Your task to perform on an android device: Go to internet settings Image 0: 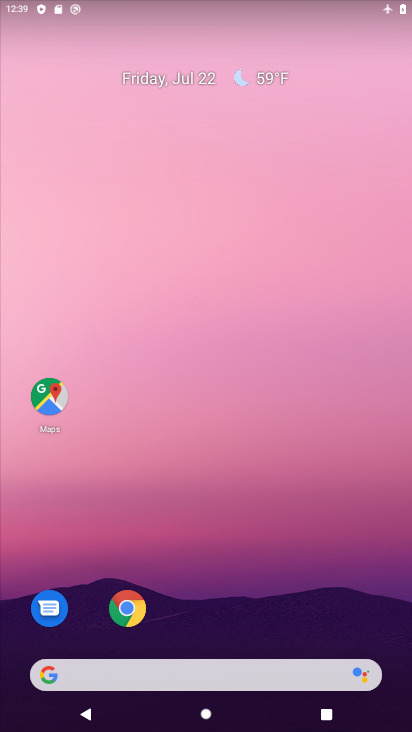
Step 0: drag from (194, 638) to (232, 235)
Your task to perform on an android device: Go to internet settings Image 1: 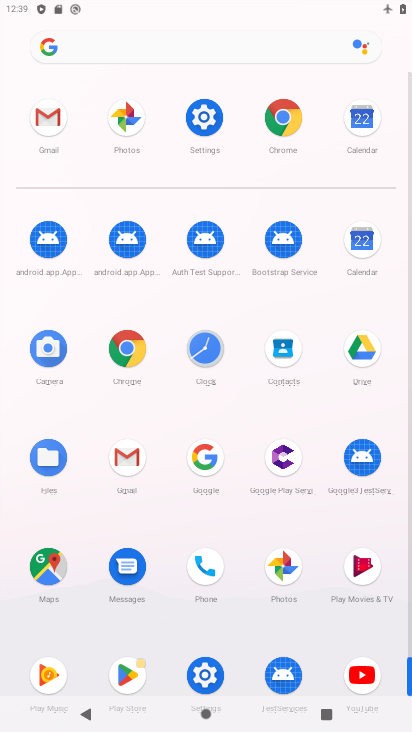
Step 1: click (203, 672)
Your task to perform on an android device: Go to internet settings Image 2: 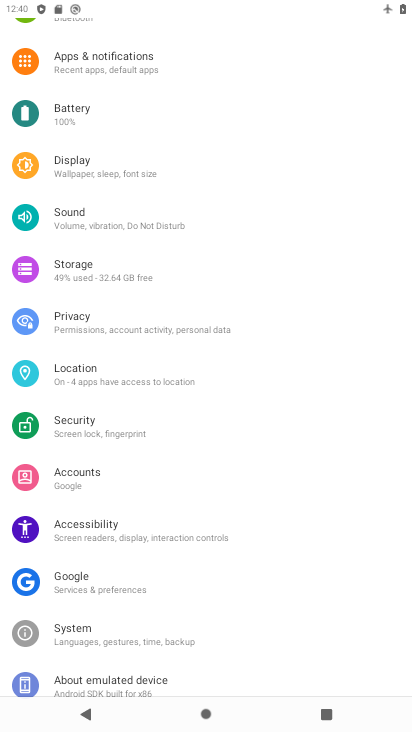
Step 2: drag from (169, 113) to (168, 535)
Your task to perform on an android device: Go to internet settings Image 3: 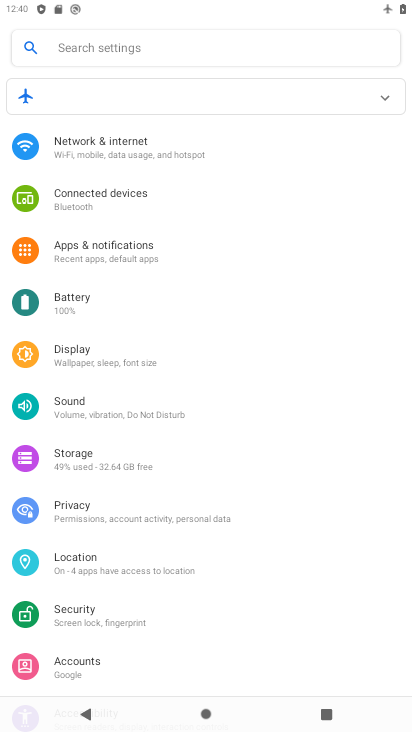
Step 3: click (136, 156)
Your task to perform on an android device: Go to internet settings Image 4: 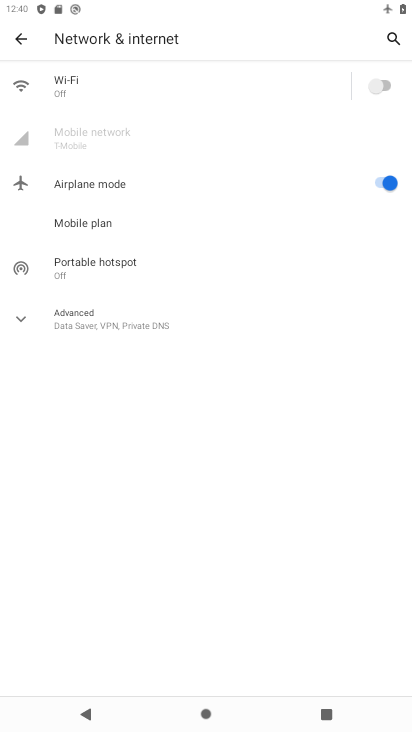
Step 4: task complete